Your task to perform on an android device: Open Amazon Image 0: 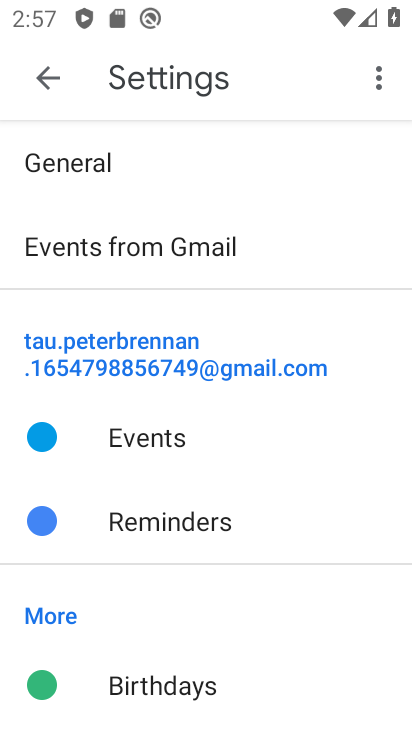
Step 0: press back button
Your task to perform on an android device: Open Amazon Image 1: 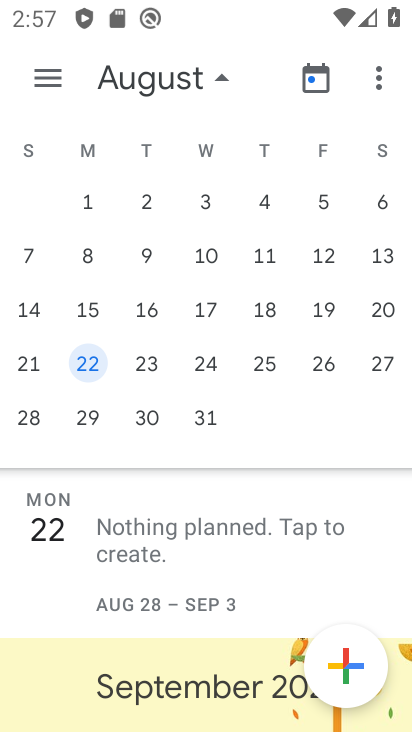
Step 1: press back button
Your task to perform on an android device: Open Amazon Image 2: 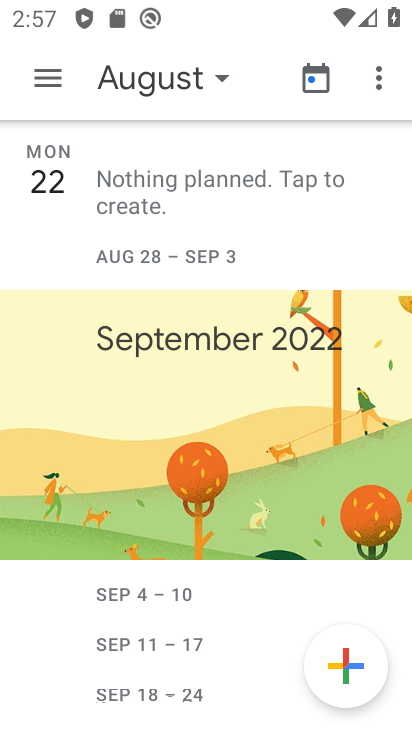
Step 2: press back button
Your task to perform on an android device: Open Amazon Image 3: 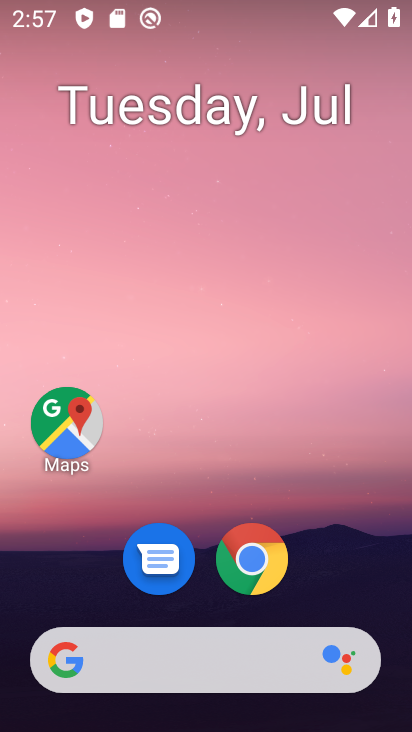
Step 3: click (261, 576)
Your task to perform on an android device: Open Amazon Image 4: 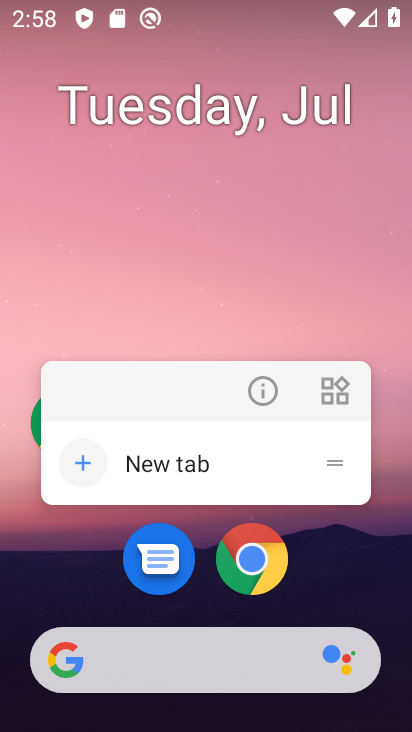
Step 4: click (258, 557)
Your task to perform on an android device: Open Amazon Image 5: 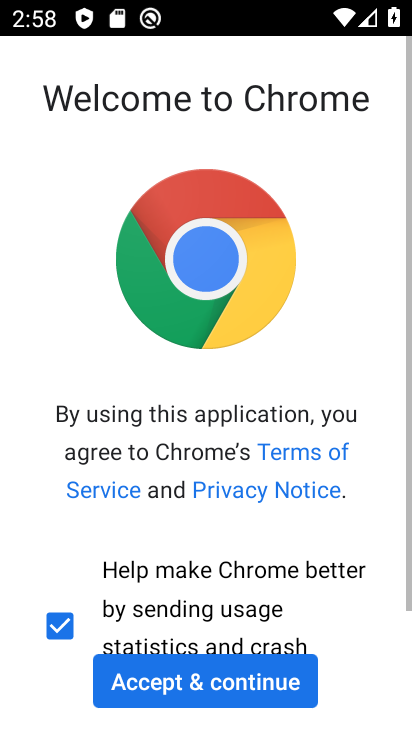
Step 5: click (190, 660)
Your task to perform on an android device: Open Amazon Image 6: 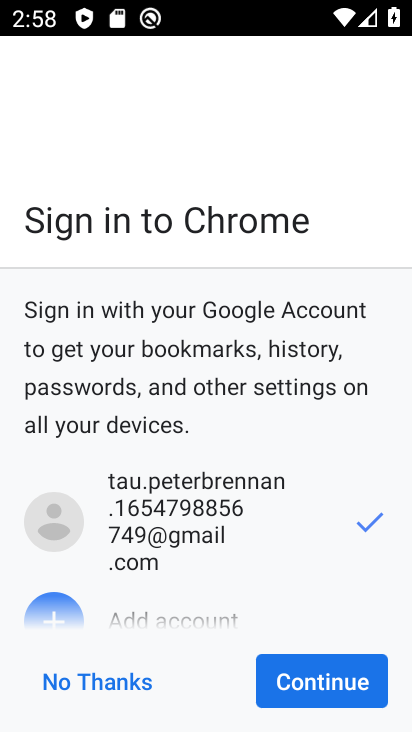
Step 6: click (265, 665)
Your task to perform on an android device: Open Amazon Image 7: 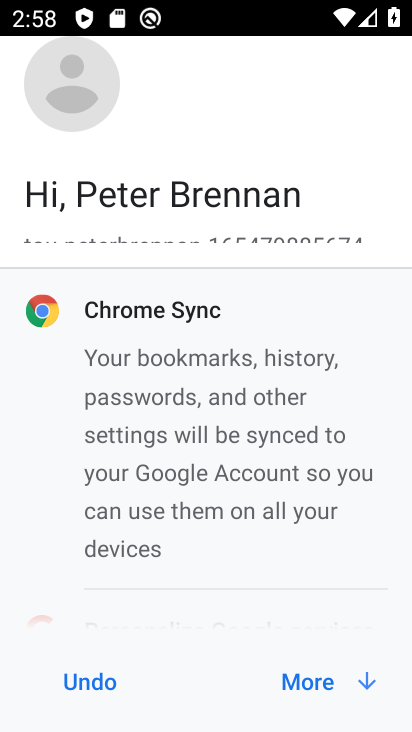
Step 7: click (296, 678)
Your task to perform on an android device: Open Amazon Image 8: 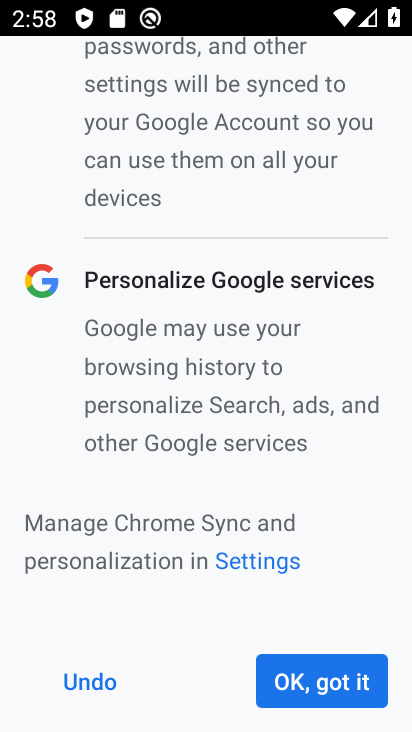
Step 8: click (295, 682)
Your task to perform on an android device: Open Amazon Image 9: 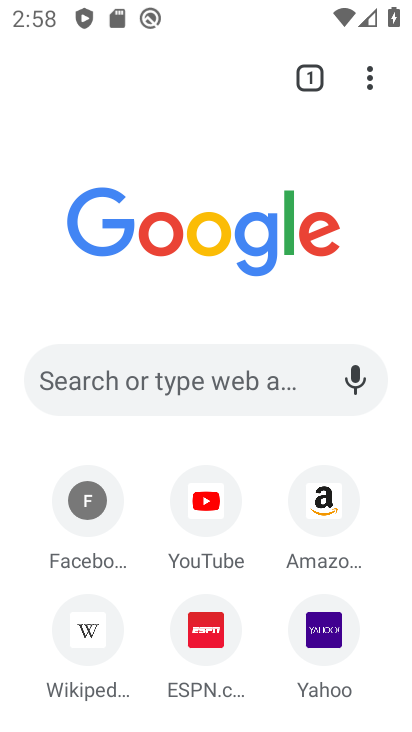
Step 9: click (327, 499)
Your task to perform on an android device: Open Amazon Image 10: 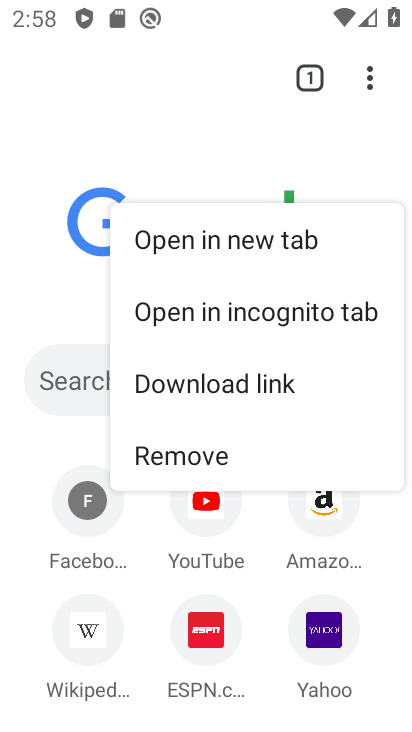
Step 10: click (336, 512)
Your task to perform on an android device: Open Amazon Image 11: 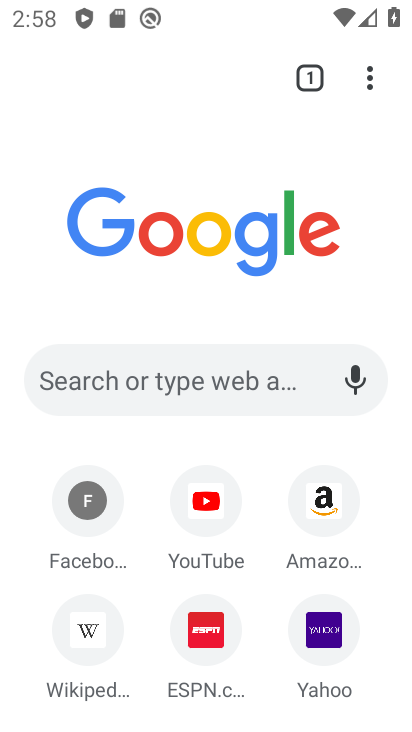
Step 11: click (298, 492)
Your task to perform on an android device: Open Amazon Image 12: 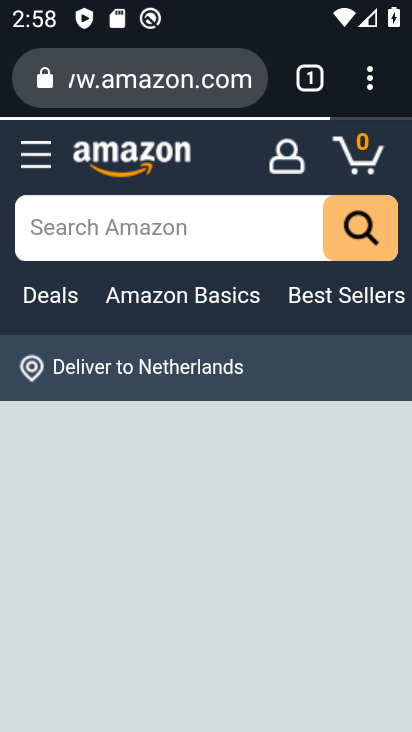
Step 12: task complete